Your task to perform on an android device: turn off notifications settings in the gmail app Image 0: 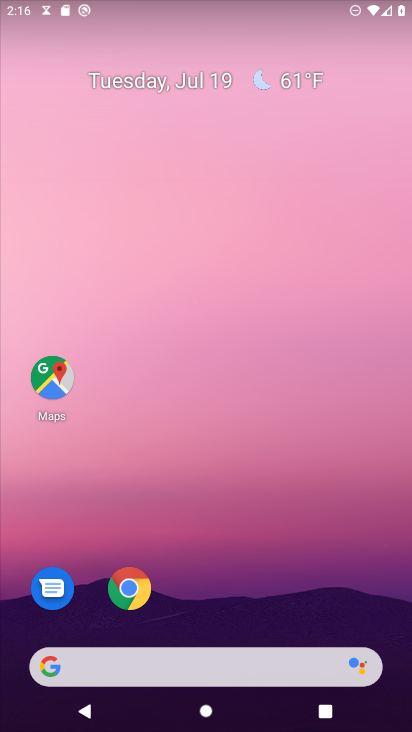
Step 0: press home button
Your task to perform on an android device: turn off notifications settings in the gmail app Image 1: 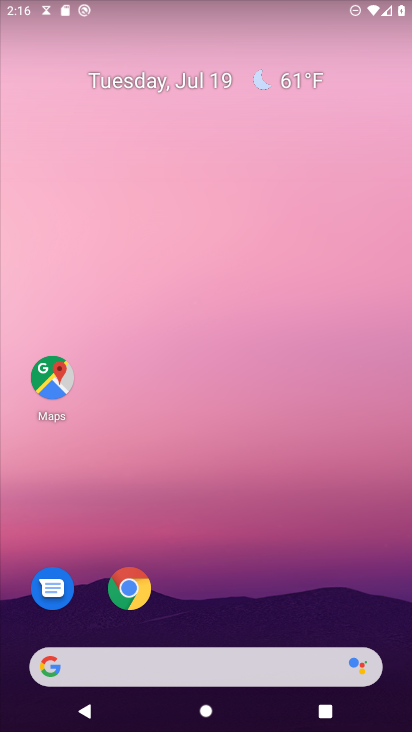
Step 1: drag from (265, 681) to (220, 221)
Your task to perform on an android device: turn off notifications settings in the gmail app Image 2: 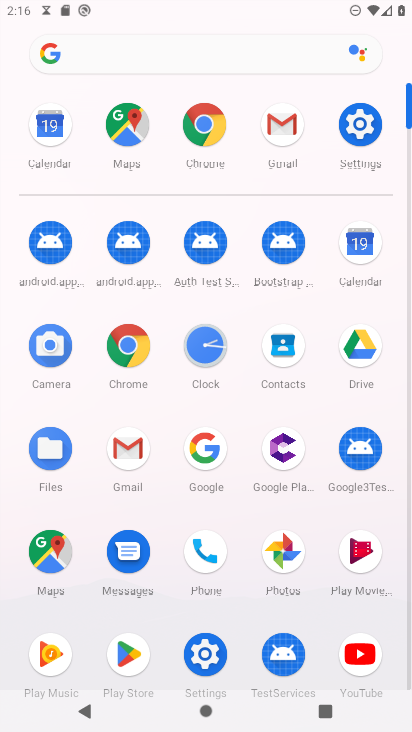
Step 2: click (286, 138)
Your task to perform on an android device: turn off notifications settings in the gmail app Image 3: 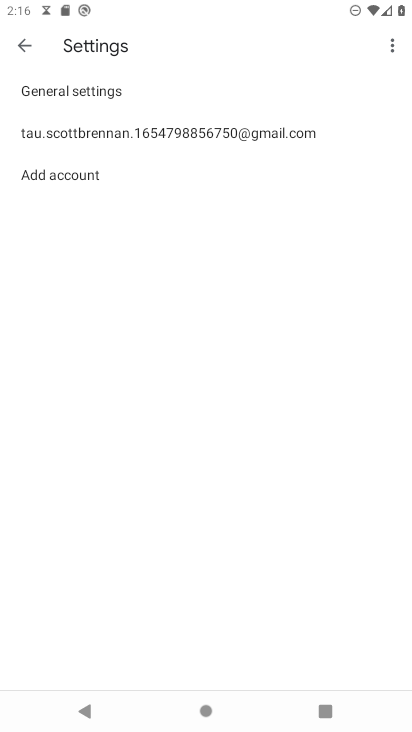
Step 3: click (86, 125)
Your task to perform on an android device: turn off notifications settings in the gmail app Image 4: 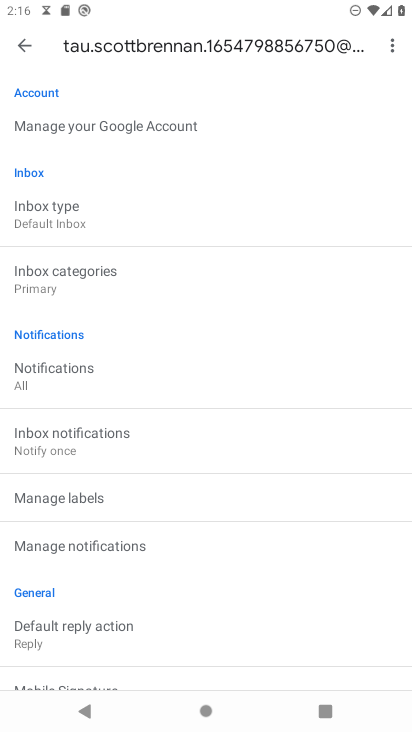
Step 4: click (89, 370)
Your task to perform on an android device: turn off notifications settings in the gmail app Image 5: 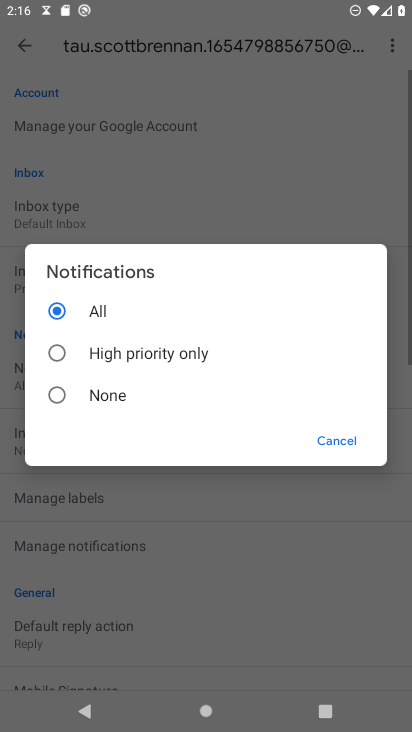
Step 5: click (76, 390)
Your task to perform on an android device: turn off notifications settings in the gmail app Image 6: 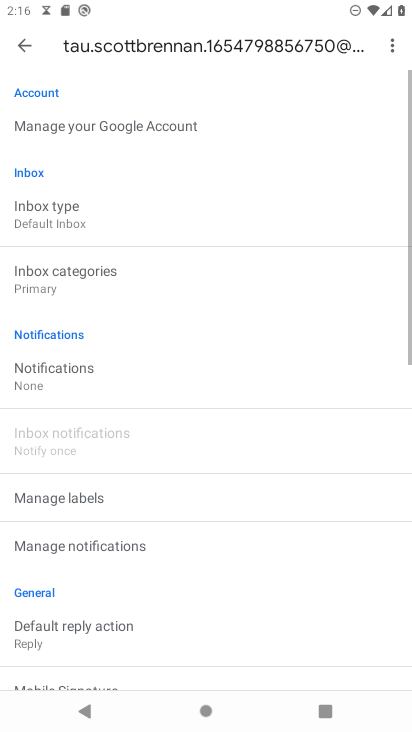
Step 6: click (71, 364)
Your task to perform on an android device: turn off notifications settings in the gmail app Image 7: 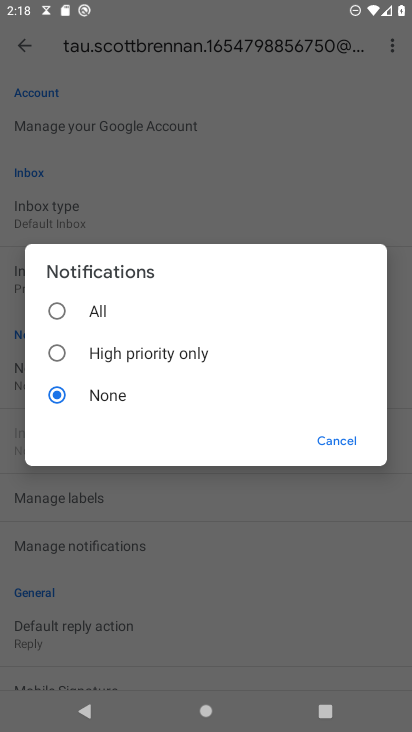
Step 7: task complete